Your task to perform on an android device: show emergency info Image 0: 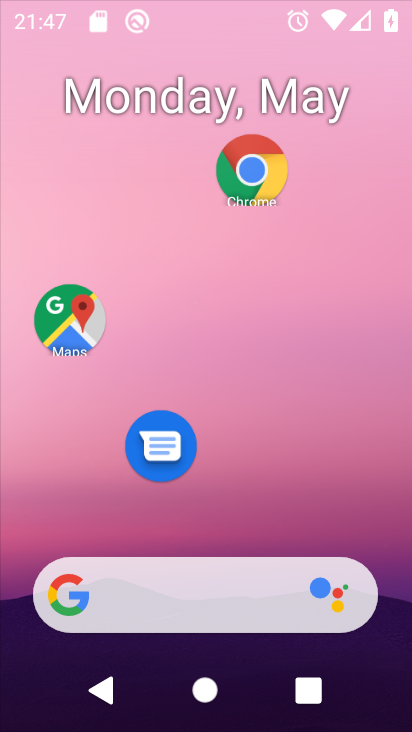
Step 0: press home button
Your task to perform on an android device: show emergency info Image 1: 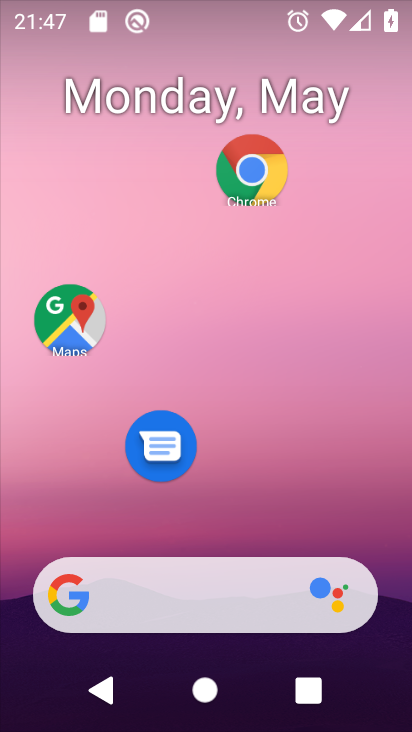
Step 1: drag from (224, 536) to (213, 30)
Your task to perform on an android device: show emergency info Image 2: 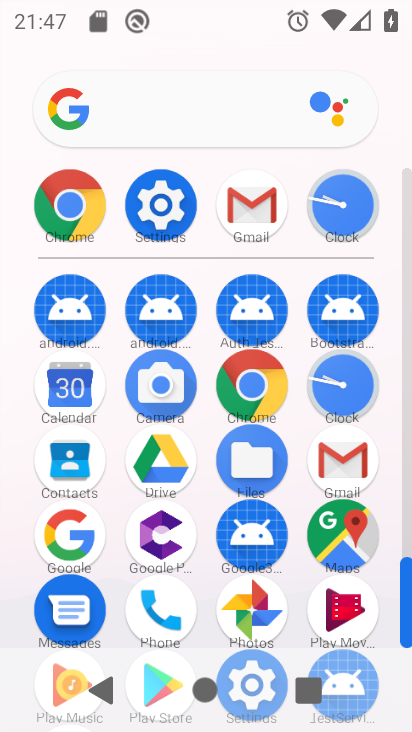
Step 2: click (161, 201)
Your task to perform on an android device: show emergency info Image 3: 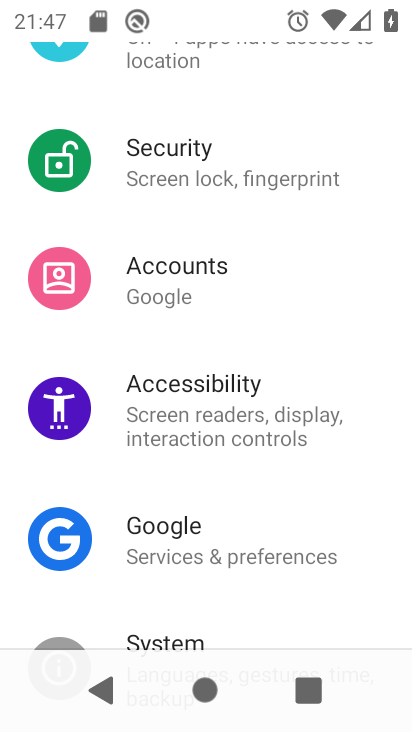
Step 3: drag from (186, 594) to (206, 80)
Your task to perform on an android device: show emergency info Image 4: 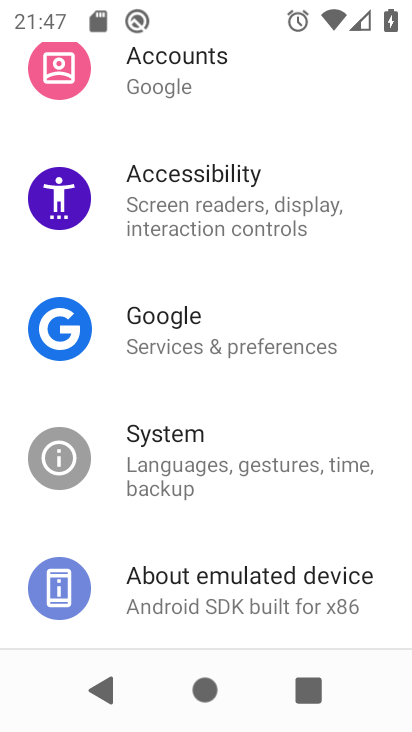
Step 4: click (214, 586)
Your task to perform on an android device: show emergency info Image 5: 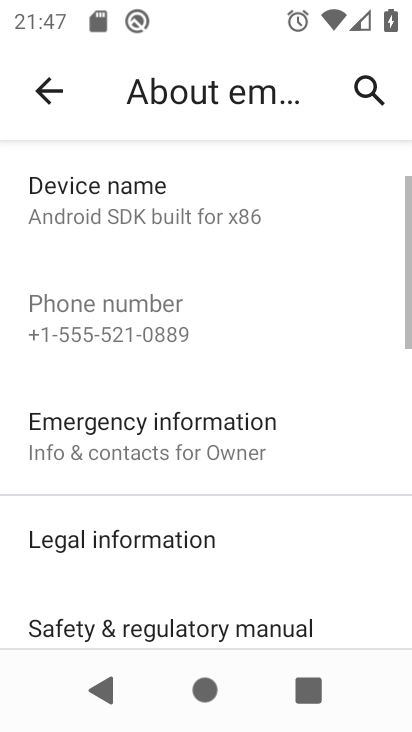
Step 5: click (164, 430)
Your task to perform on an android device: show emergency info Image 6: 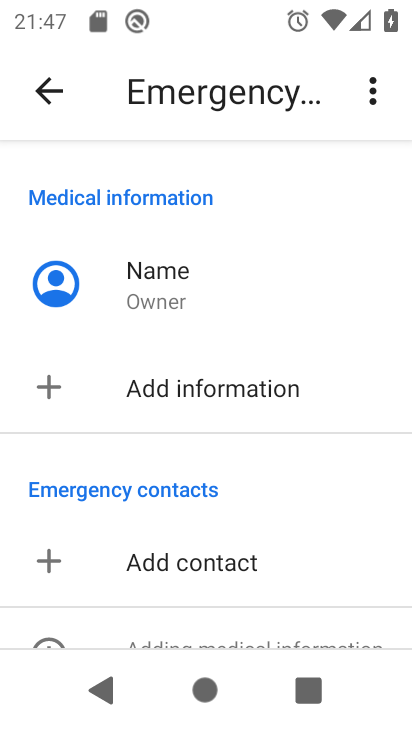
Step 6: task complete